Your task to perform on an android device: allow notifications from all sites in the chrome app Image 0: 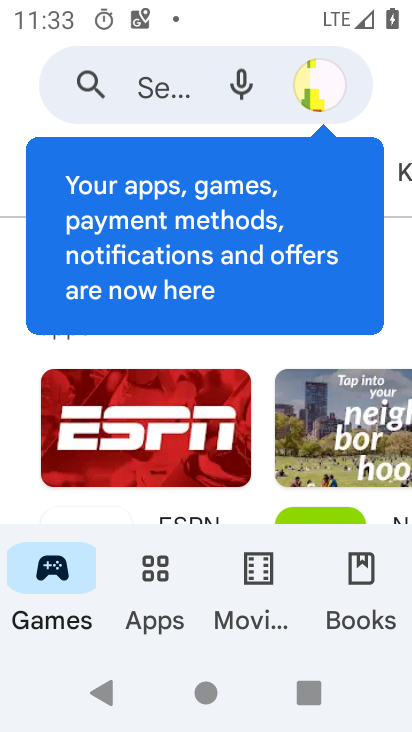
Step 0: press home button
Your task to perform on an android device: allow notifications from all sites in the chrome app Image 1: 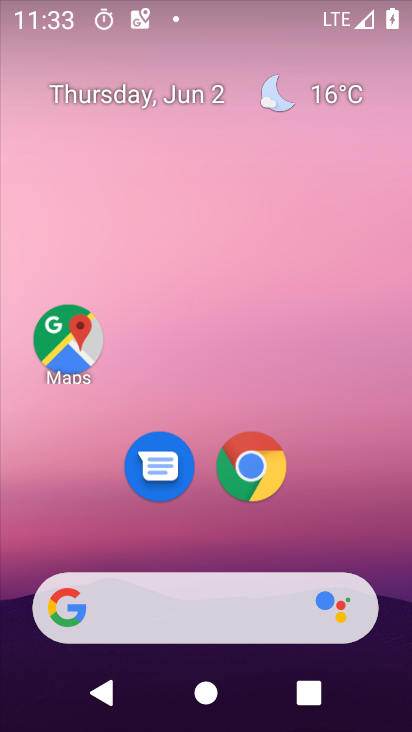
Step 1: click (267, 454)
Your task to perform on an android device: allow notifications from all sites in the chrome app Image 2: 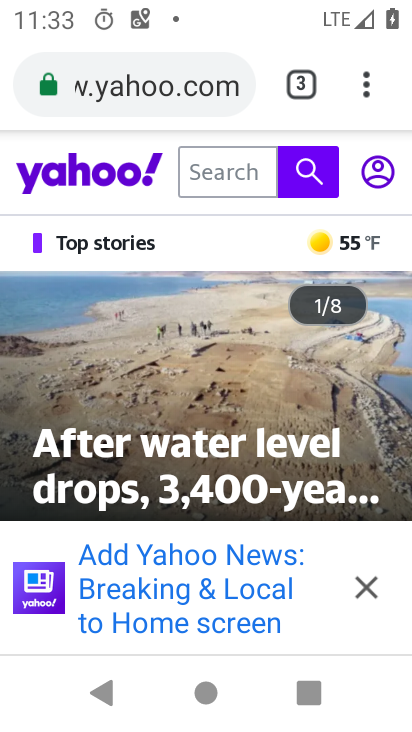
Step 2: click (368, 84)
Your task to perform on an android device: allow notifications from all sites in the chrome app Image 3: 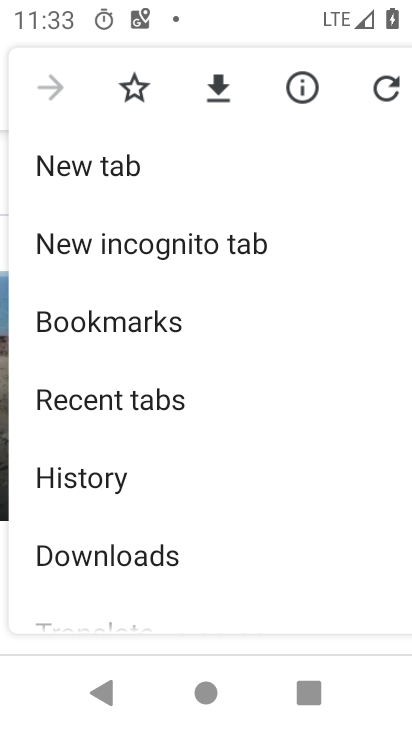
Step 3: drag from (123, 511) to (127, 304)
Your task to perform on an android device: allow notifications from all sites in the chrome app Image 4: 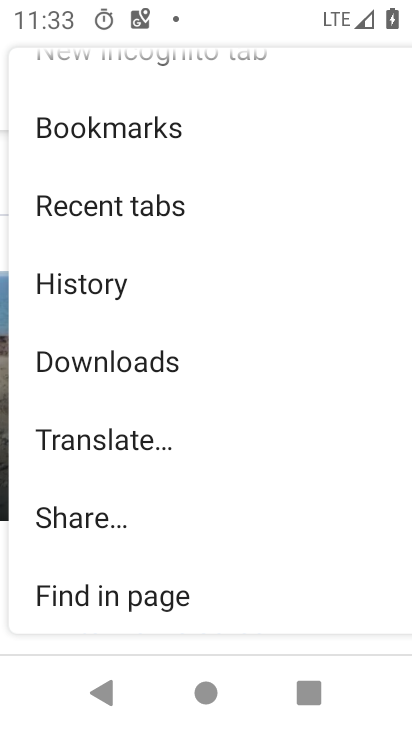
Step 4: drag from (118, 568) to (163, 308)
Your task to perform on an android device: allow notifications from all sites in the chrome app Image 5: 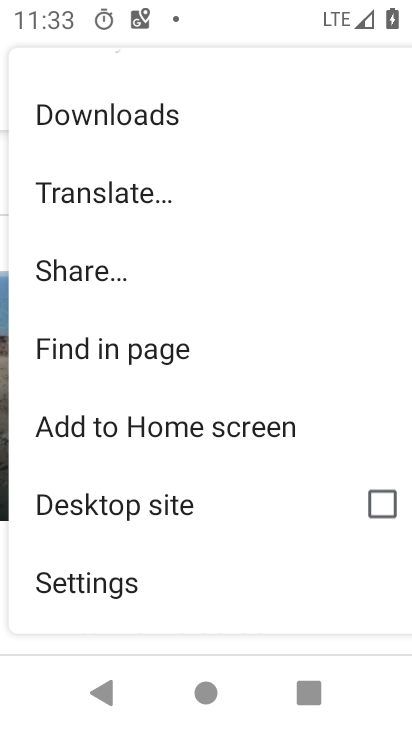
Step 5: click (120, 585)
Your task to perform on an android device: allow notifications from all sites in the chrome app Image 6: 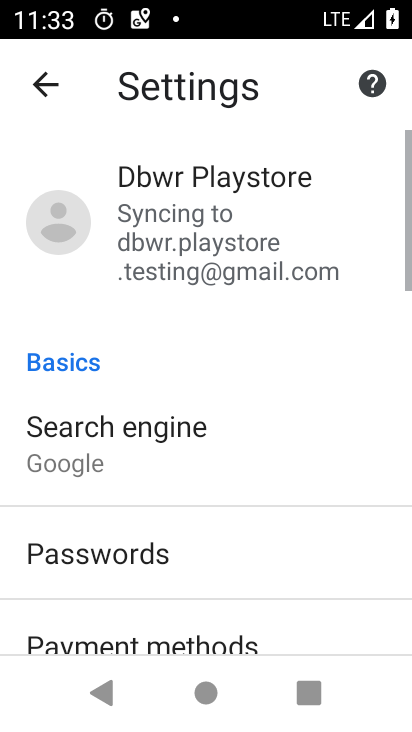
Step 6: drag from (164, 559) to (183, 235)
Your task to perform on an android device: allow notifications from all sites in the chrome app Image 7: 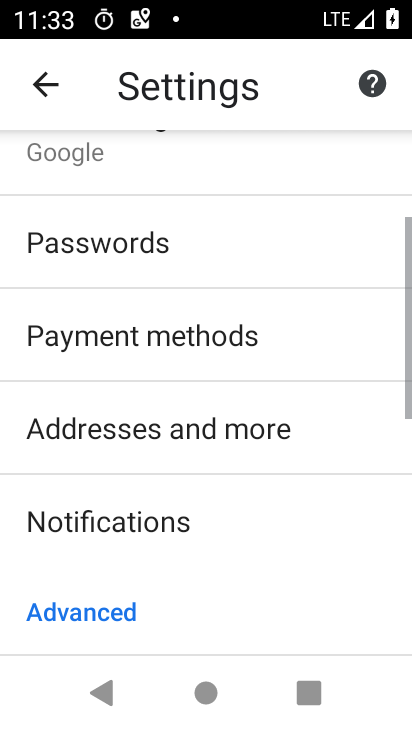
Step 7: click (163, 526)
Your task to perform on an android device: allow notifications from all sites in the chrome app Image 8: 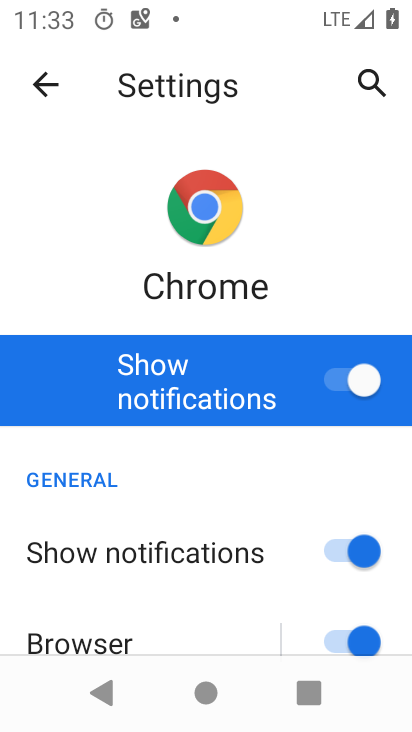
Step 8: click (173, 498)
Your task to perform on an android device: allow notifications from all sites in the chrome app Image 9: 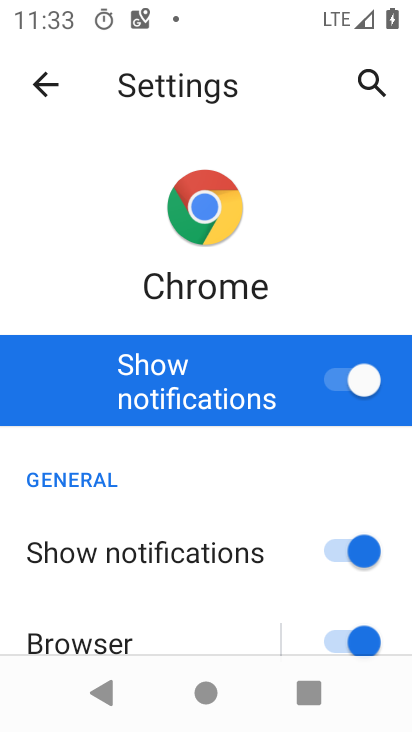
Step 9: click (38, 91)
Your task to perform on an android device: allow notifications from all sites in the chrome app Image 10: 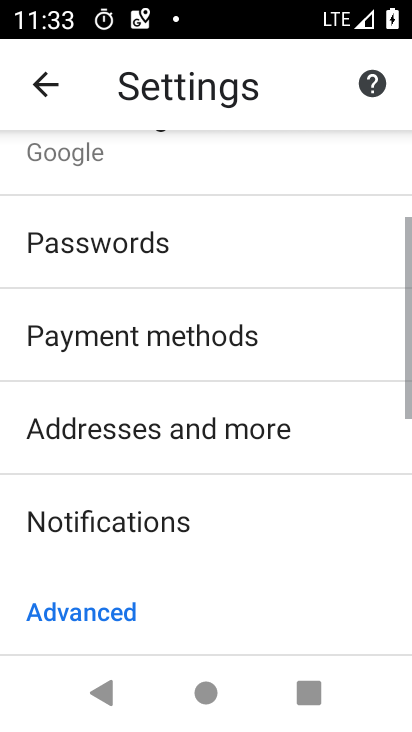
Step 10: drag from (265, 550) to (265, 254)
Your task to perform on an android device: allow notifications from all sites in the chrome app Image 11: 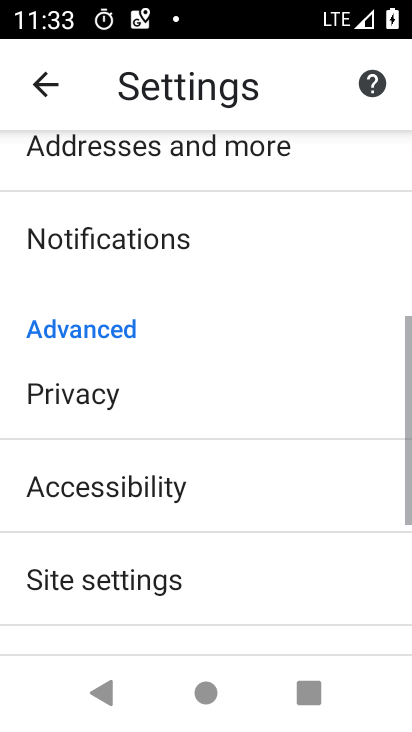
Step 11: drag from (230, 474) to (244, 216)
Your task to perform on an android device: allow notifications from all sites in the chrome app Image 12: 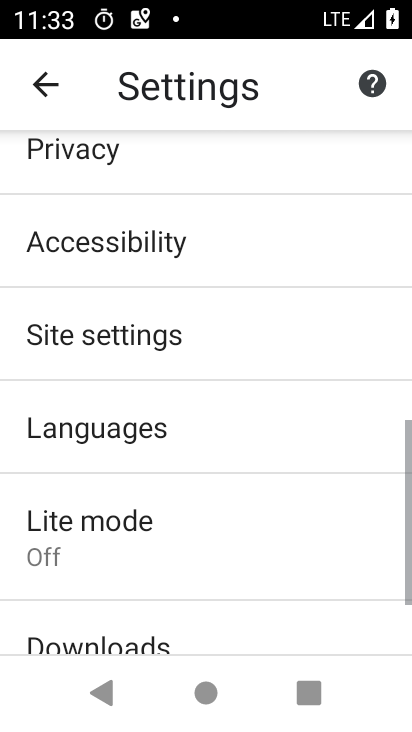
Step 12: drag from (194, 548) to (224, 327)
Your task to perform on an android device: allow notifications from all sites in the chrome app Image 13: 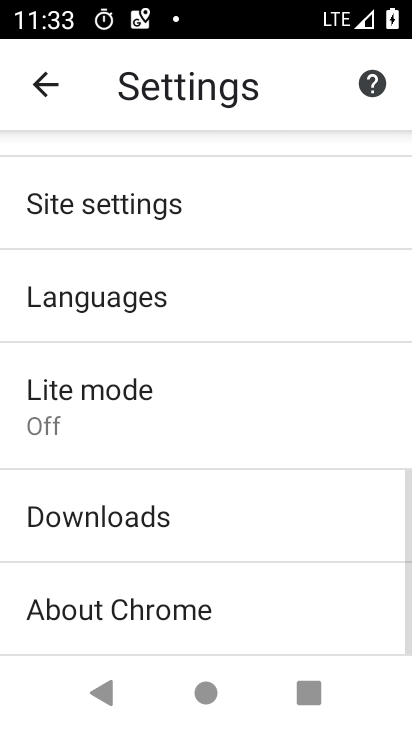
Step 13: click (171, 206)
Your task to perform on an android device: allow notifications from all sites in the chrome app Image 14: 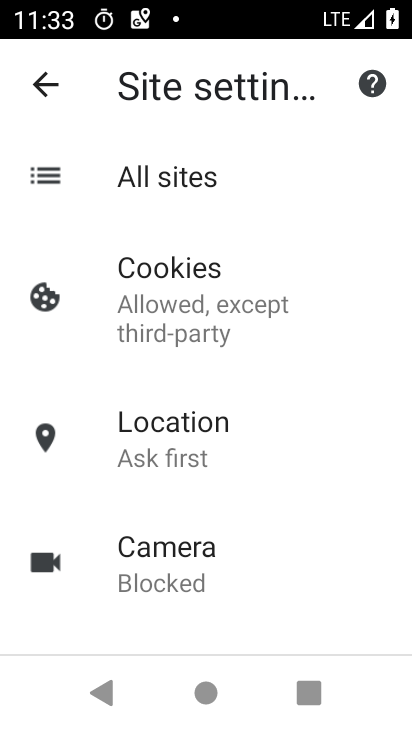
Step 14: click (171, 196)
Your task to perform on an android device: allow notifications from all sites in the chrome app Image 15: 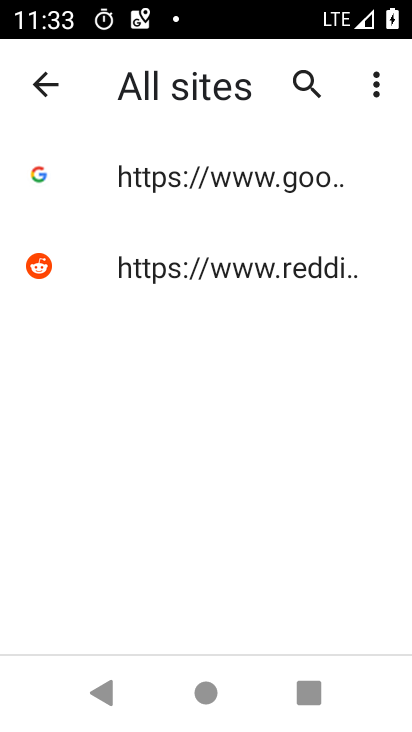
Step 15: click (171, 196)
Your task to perform on an android device: allow notifications from all sites in the chrome app Image 16: 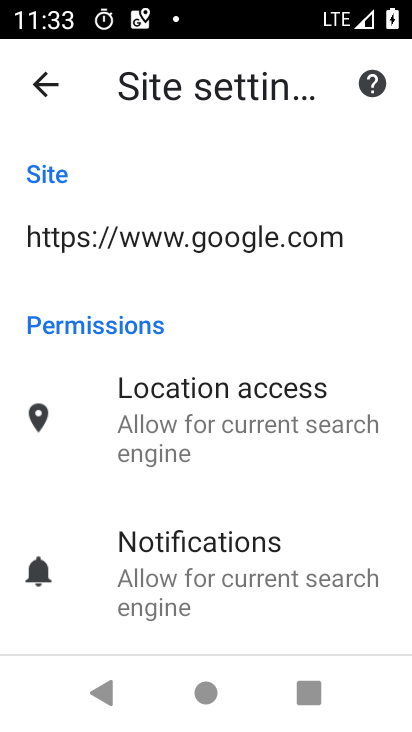
Step 16: click (212, 572)
Your task to perform on an android device: allow notifications from all sites in the chrome app Image 17: 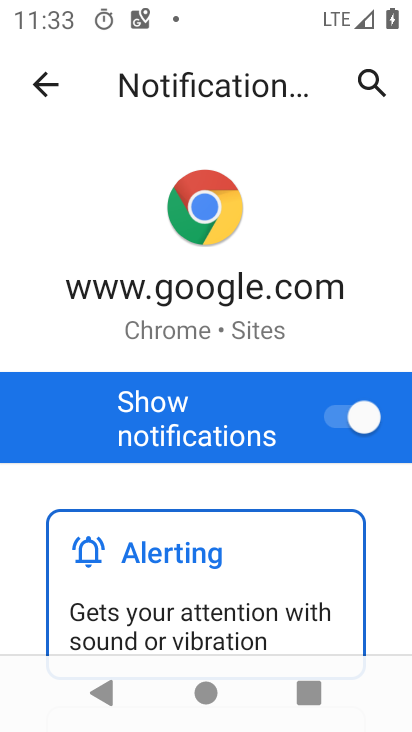
Step 17: task complete